Your task to perform on an android device: Go to Maps Image 0: 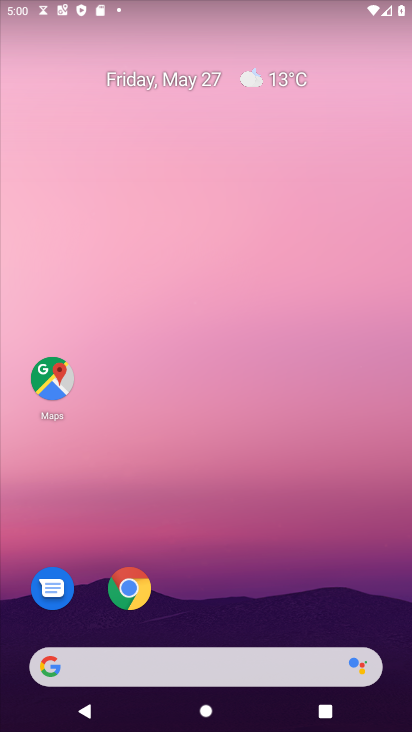
Step 0: click (53, 380)
Your task to perform on an android device: Go to Maps Image 1: 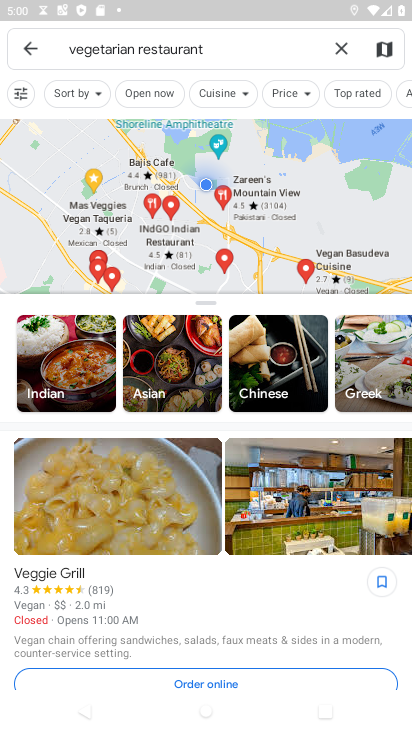
Step 1: task complete